Your task to perform on an android device: Set an alarm for 8pm Image 0: 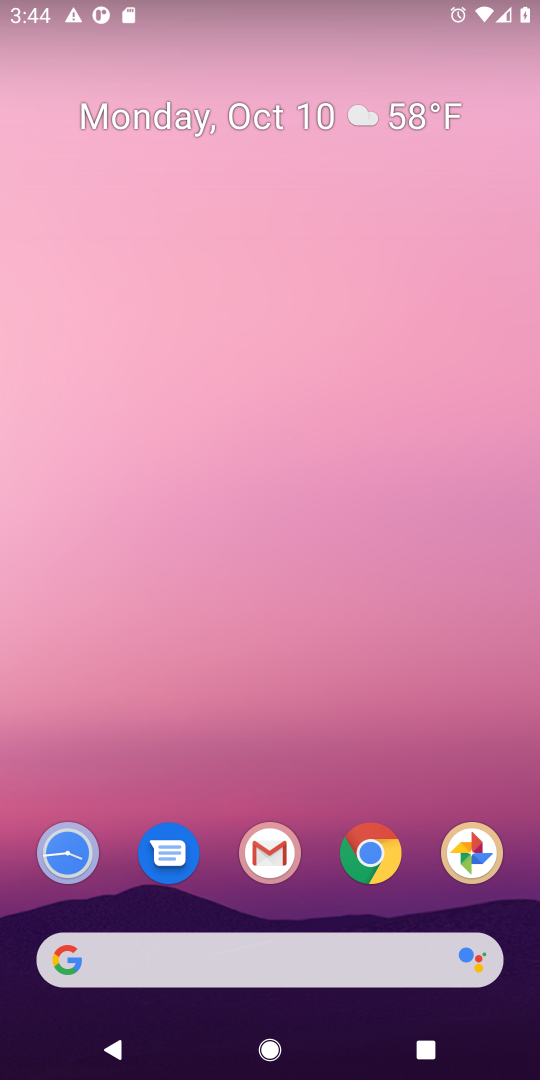
Step 0: drag from (362, 757) to (472, 22)
Your task to perform on an android device: Set an alarm for 8pm Image 1: 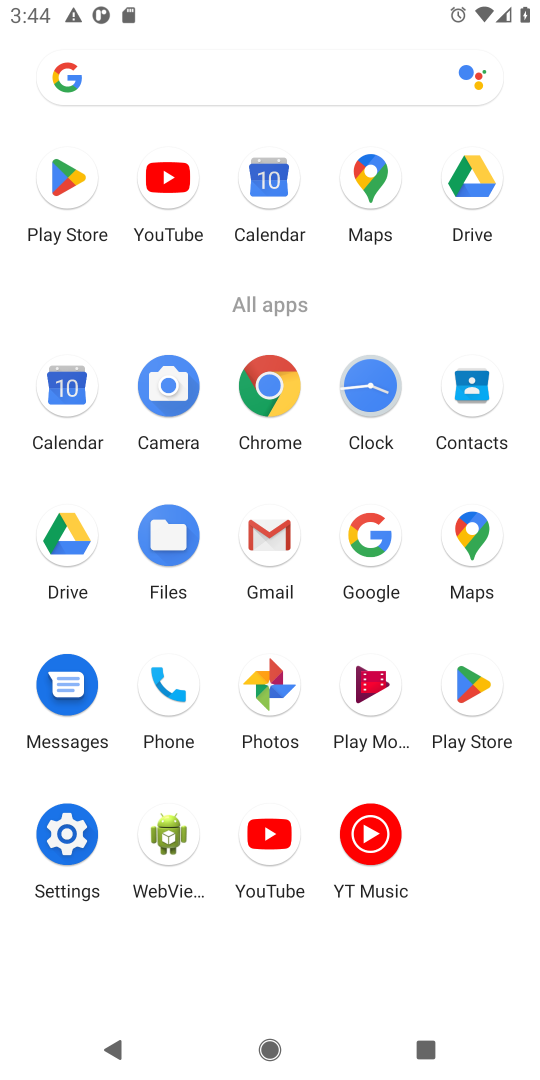
Step 1: click (366, 392)
Your task to perform on an android device: Set an alarm for 8pm Image 2: 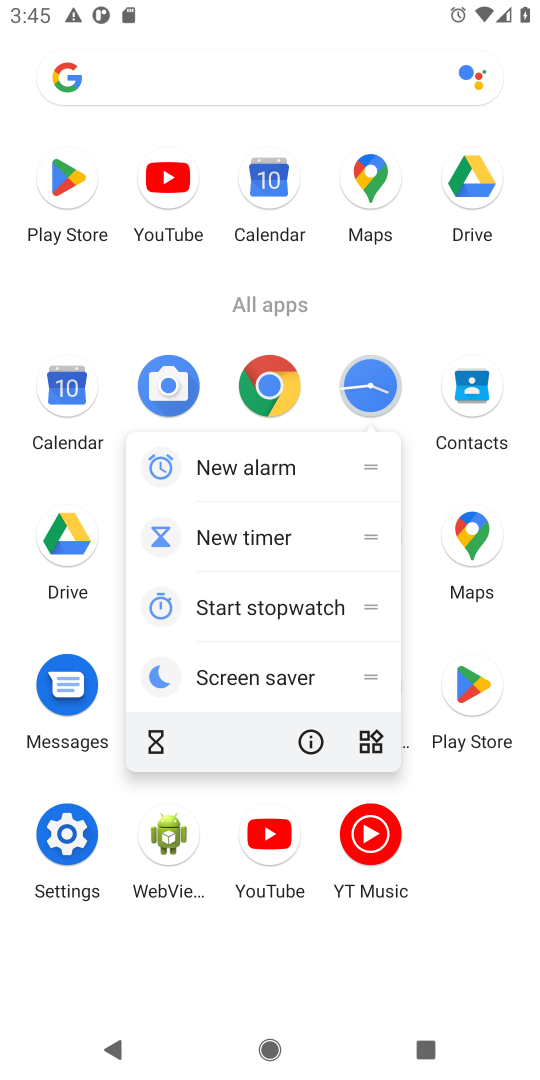
Step 2: click (377, 371)
Your task to perform on an android device: Set an alarm for 8pm Image 3: 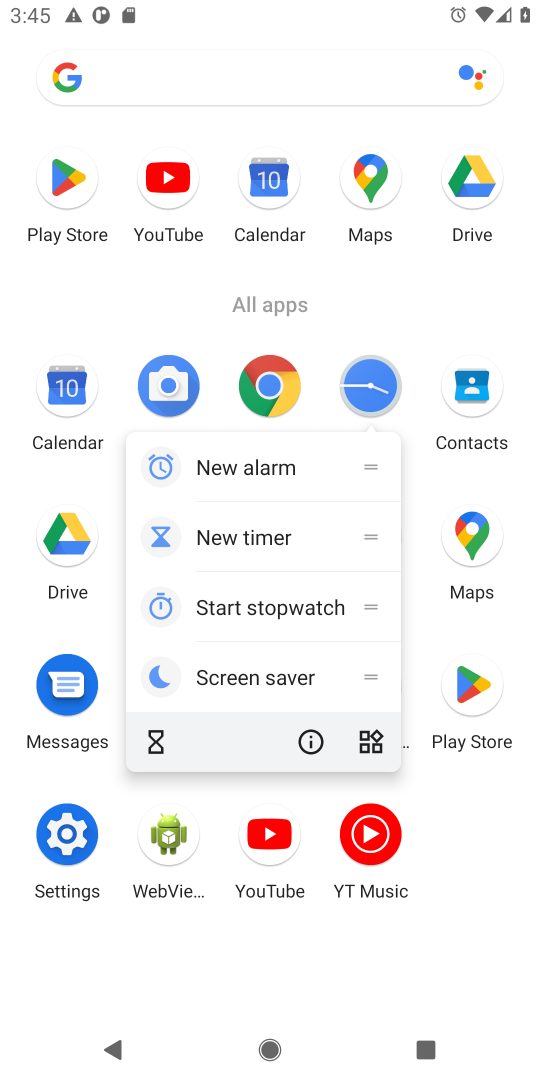
Step 3: click (374, 389)
Your task to perform on an android device: Set an alarm for 8pm Image 4: 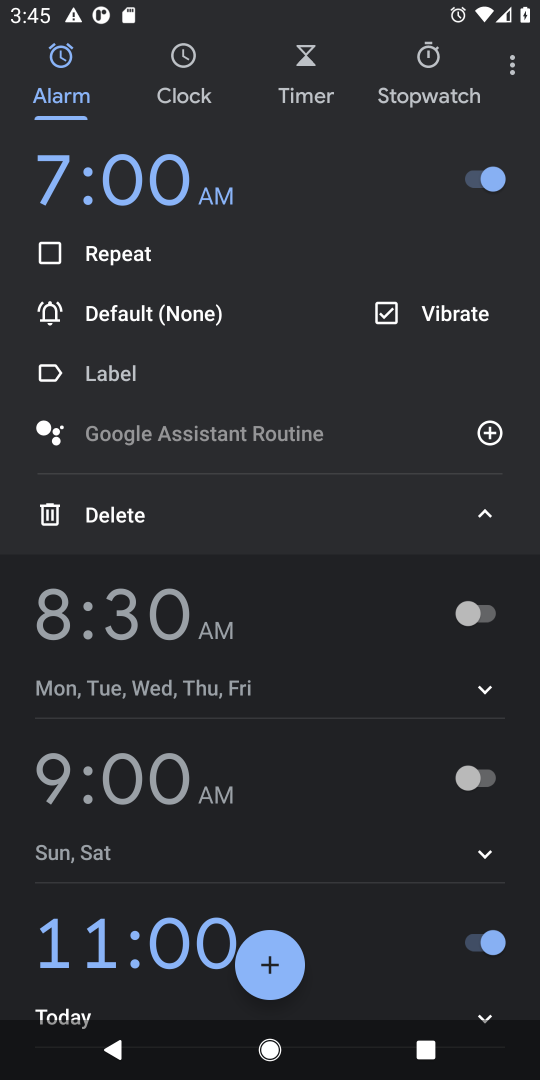
Step 4: click (287, 965)
Your task to perform on an android device: Set an alarm for 8pm Image 5: 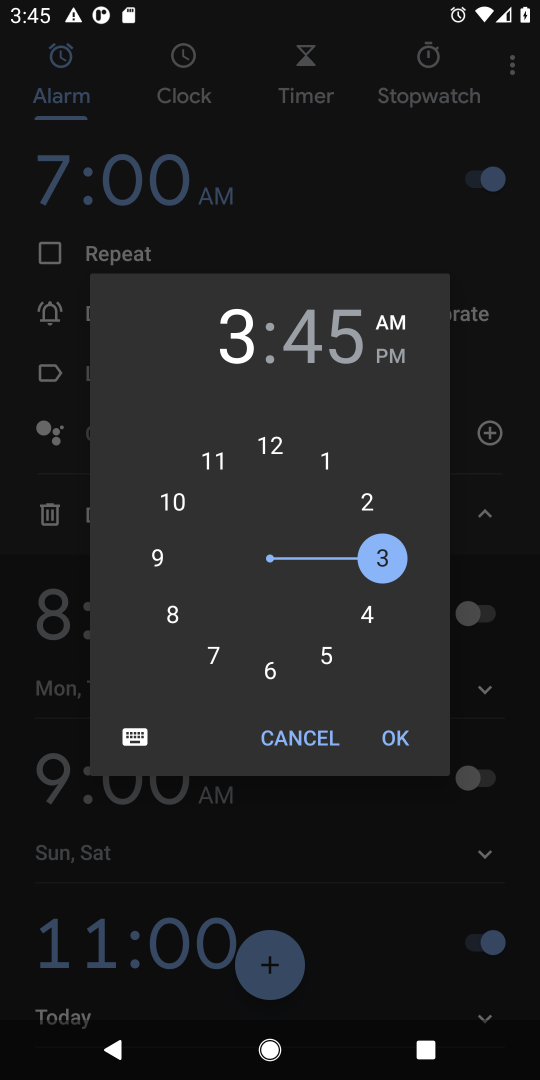
Step 5: click (178, 617)
Your task to perform on an android device: Set an alarm for 8pm Image 6: 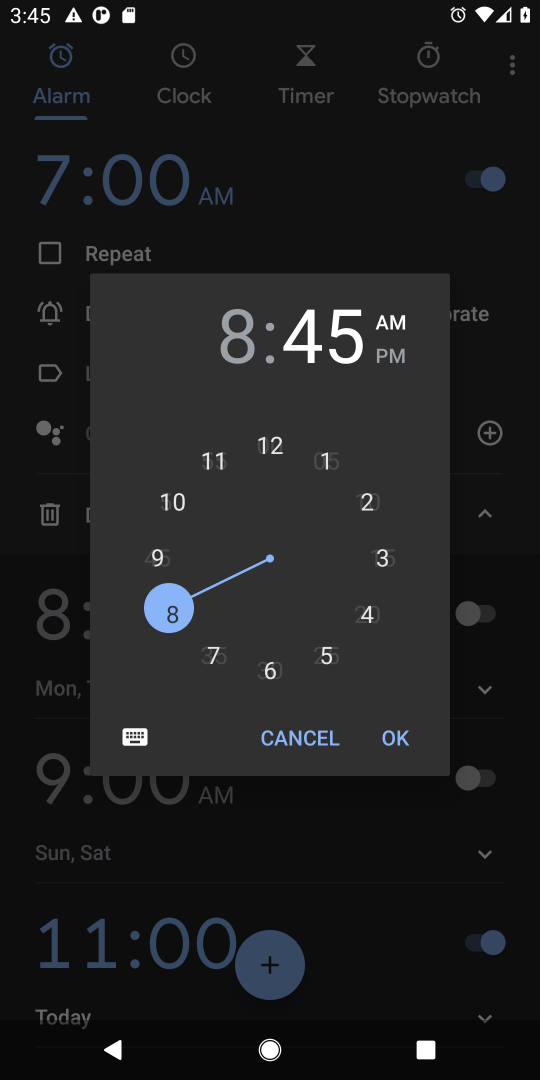
Step 6: click (178, 617)
Your task to perform on an android device: Set an alarm for 8pm Image 7: 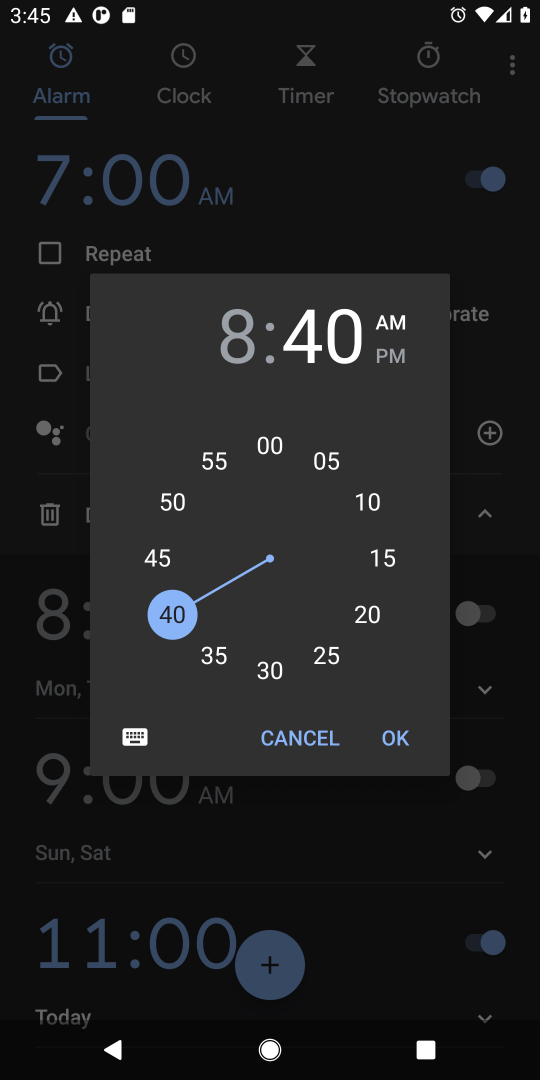
Step 7: click (263, 440)
Your task to perform on an android device: Set an alarm for 8pm Image 8: 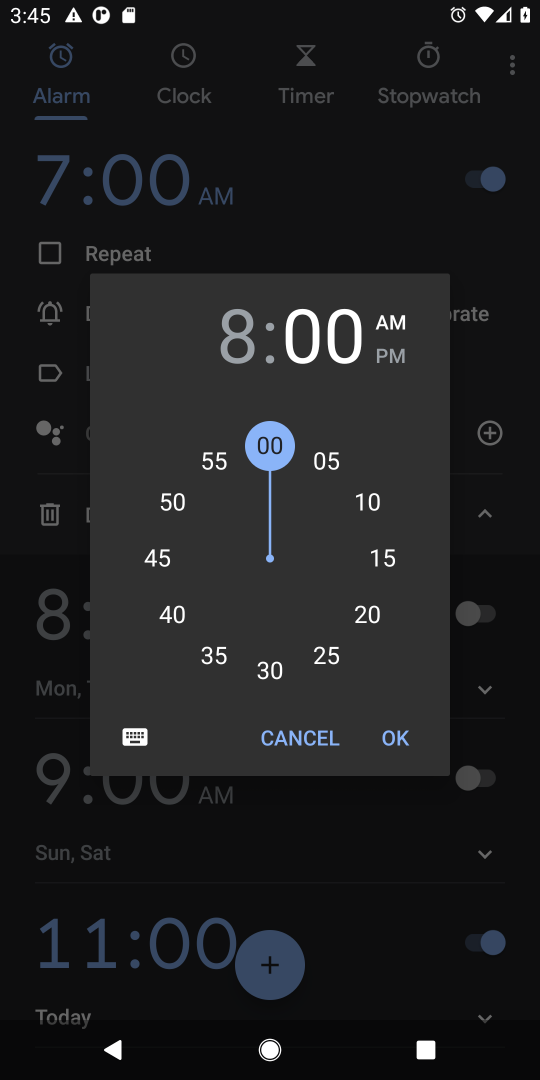
Step 8: click (391, 358)
Your task to perform on an android device: Set an alarm for 8pm Image 9: 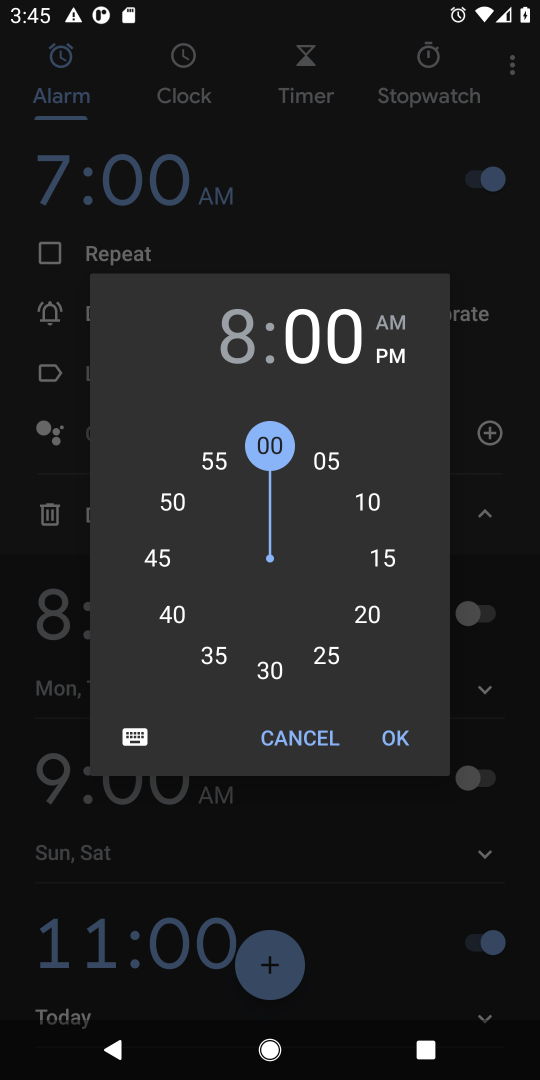
Step 9: task complete